Your task to perform on an android device: Open ESPN.com Image 0: 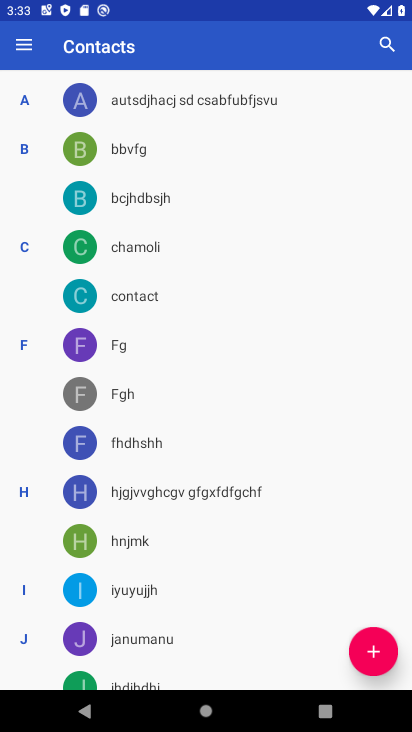
Step 0: press home button
Your task to perform on an android device: Open ESPN.com Image 1: 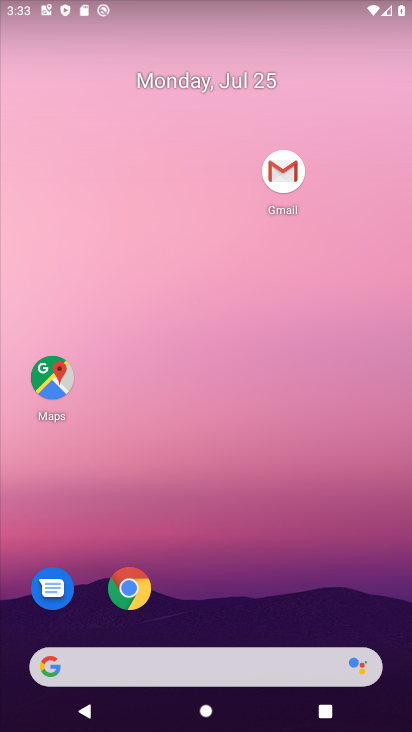
Step 1: click (130, 588)
Your task to perform on an android device: Open ESPN.com Image 2: 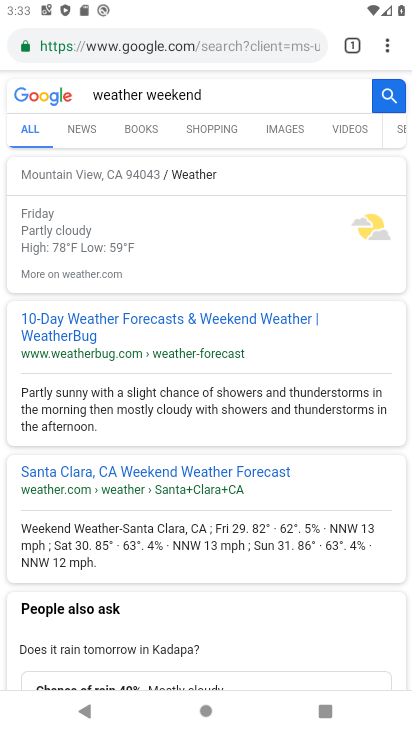
Step 2: click (254, 51)
Your task to perform on an android device: Open ESPN.com Image 3: 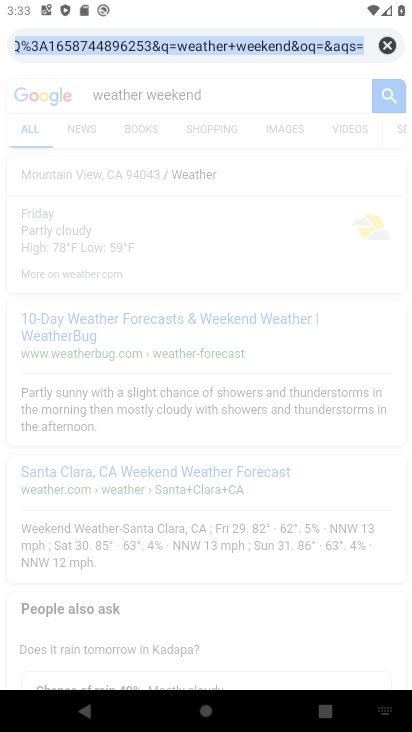
Step 3: type "espn.com"
Your task to perform on an android device: Open ESPN.com Image 4: 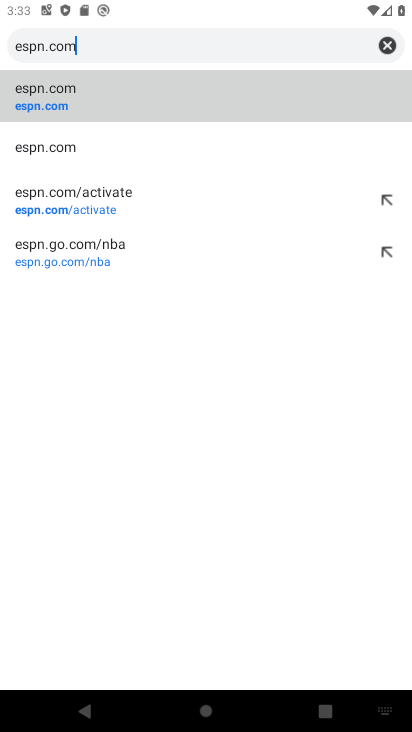
Step 4: click (38, 98)
Your task to perform on an android device: Open ESPN.com Image 5: 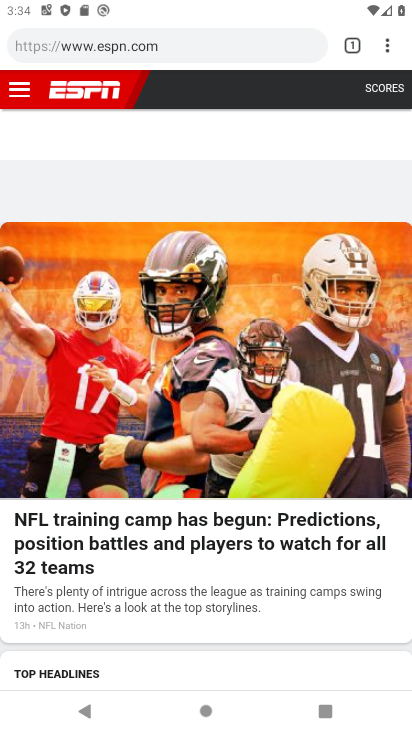
Step 5: task complete